Your task to perform on an android device: Open Youtube and go to "Your channel" Image 0: 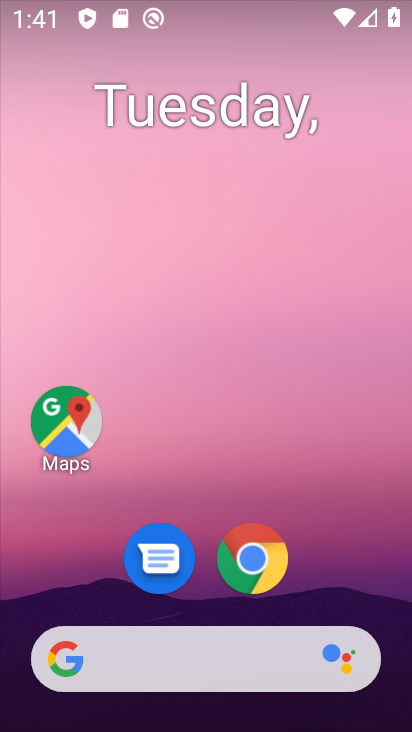
Step 0: drag from (203, 603) to (283, 13)
Your task to perform on an android device: Open Youtube and go to "Your channel" Image 1: 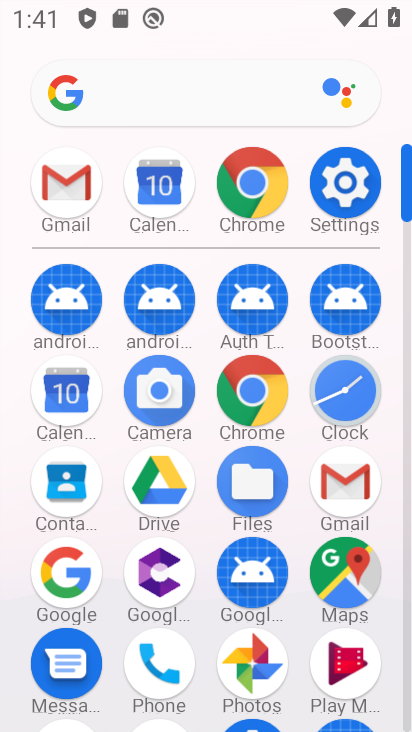
Step 1: drag from (215, 537) to (340, 11)
Your task to perform on an android device: Open Youtube and go to "Your channel" Image 2: 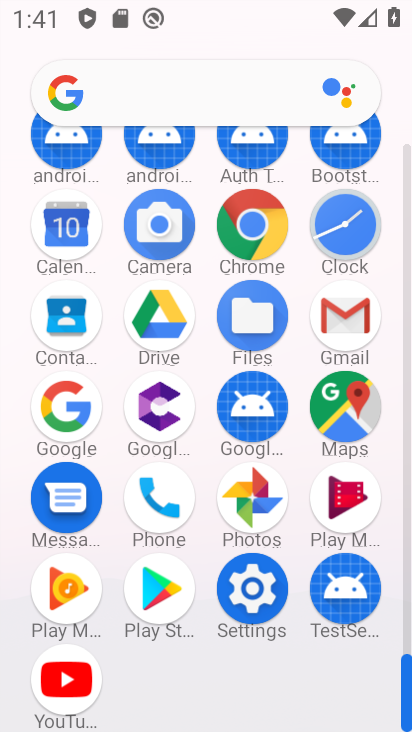
Step 2: click (77, 674)
Your task to perform on an android device: Open Youtube and go to "Your channel" Image 3: 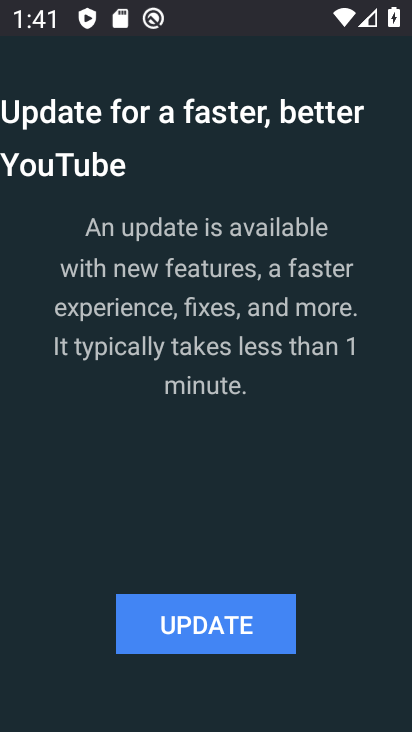
Step 3: click (194, 630)
Your task to perform on an android device: Open Youtube and go to "Your channel" Image 4: 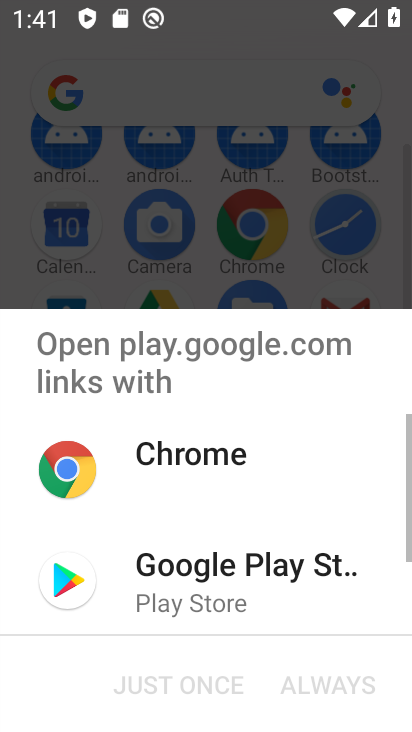
Step 4: click (185, 584)
Your task to perform on an android device: Open Youtube and go to "Your channel" Image 5: 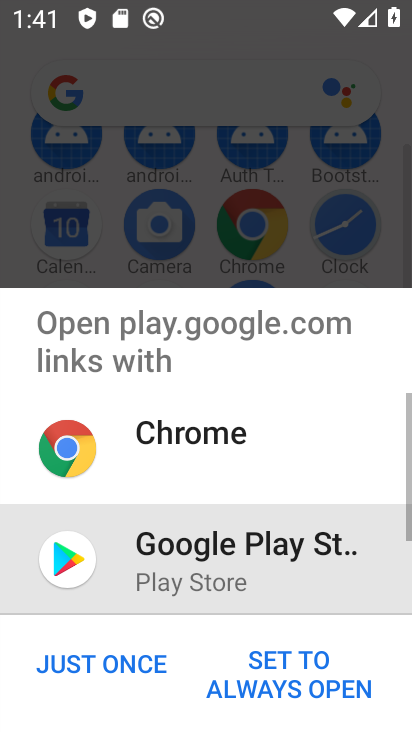
Step 5: click (108, 691)
Your task to perform on an android device: Open Youtube and go to "Your channel" Image 6: 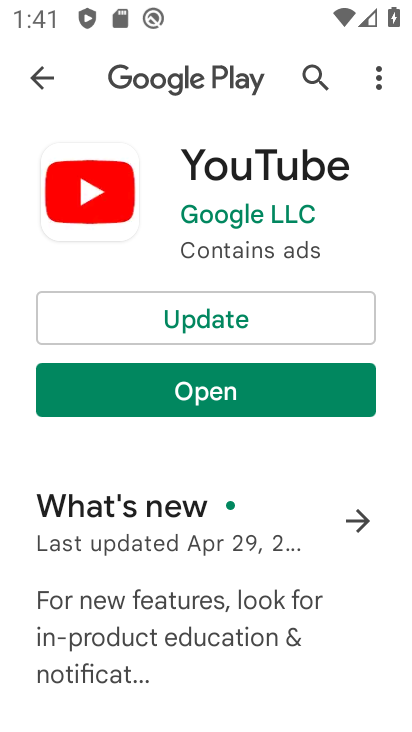
Step 6: click (213, 322)
Your task to perform on an android device: Open Youtube and go to "Your channel" Image 7: 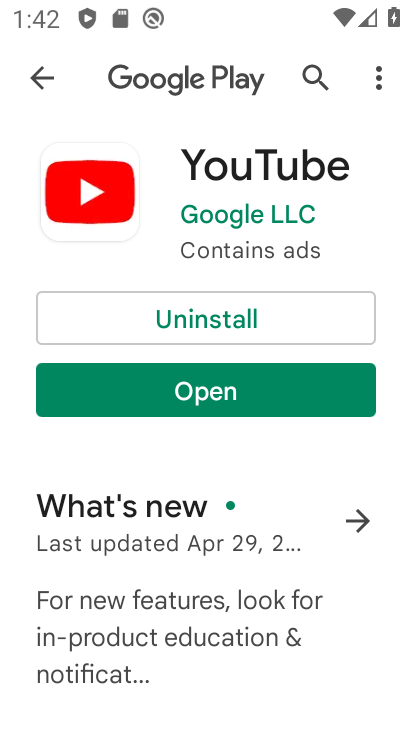
Step 7: click (185, 395)
Your task to perform on an android device: Open Youtube and go to "Your channel" Image 8: 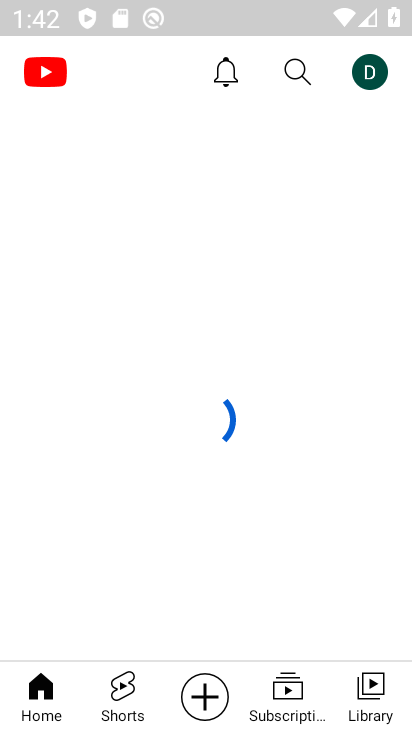
Step 8: click (345, 703)
Your task to perform on an android device: Open Youtube and go to "Your channel" Image 9: 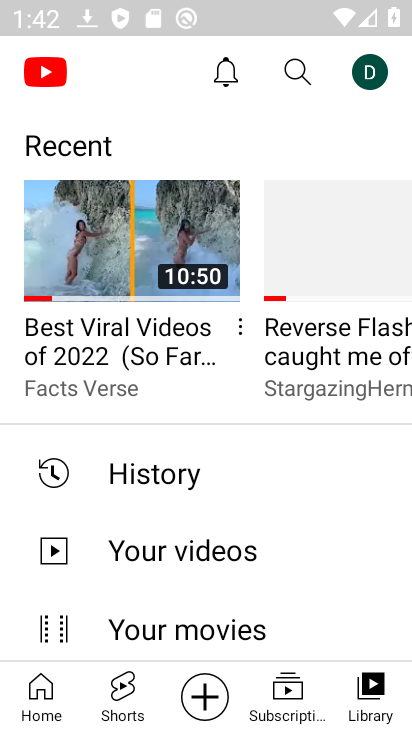
Step 9: click (370, 79)
Your task to perform on an android device: Open Youtube and go to "Your channel" Image 10: 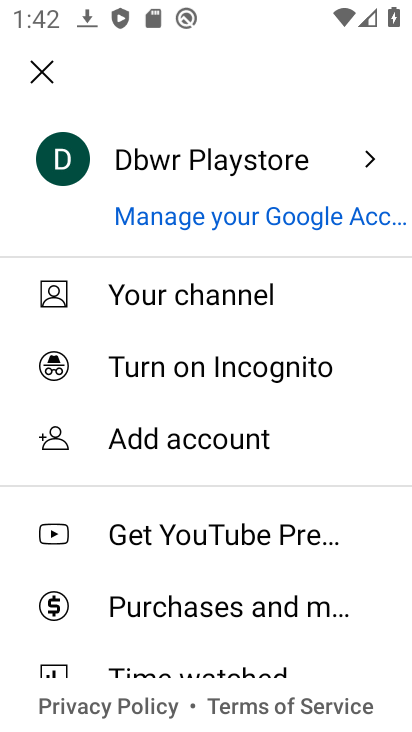
Step 10: click (146, 303)
Your task to perform on an android device: Open Youtube and go to "Your channel" Image 11: 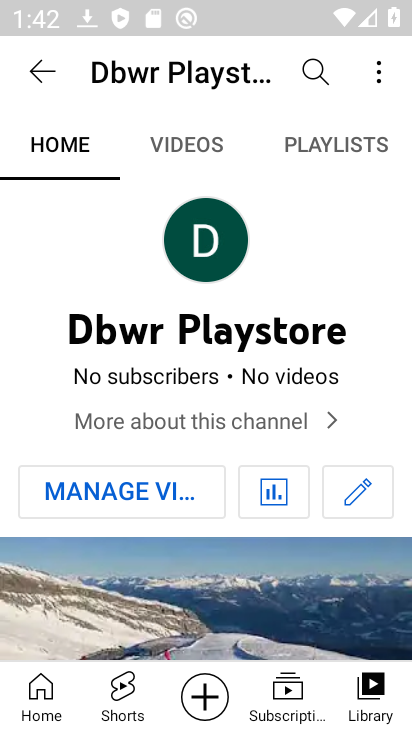
Step 11: task complete